Your task to perform on an android device: turn off sleep mode Image 0: 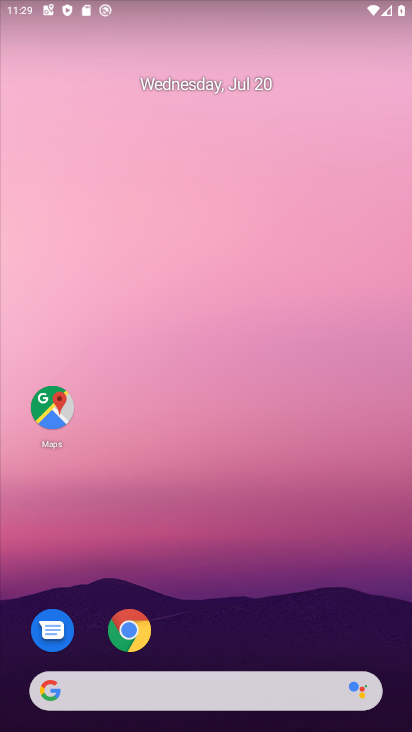
Step 0: drag from (246, 707) to (388, 97)
Your task to perform on an android device: turn off sleep mode Image 1: 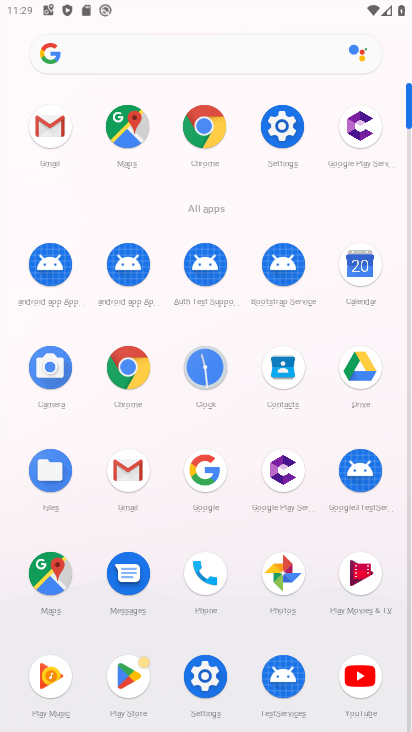
Step 1: click (283, 123)
Your task to perform on an android device: turn off sleep mode Image 2: 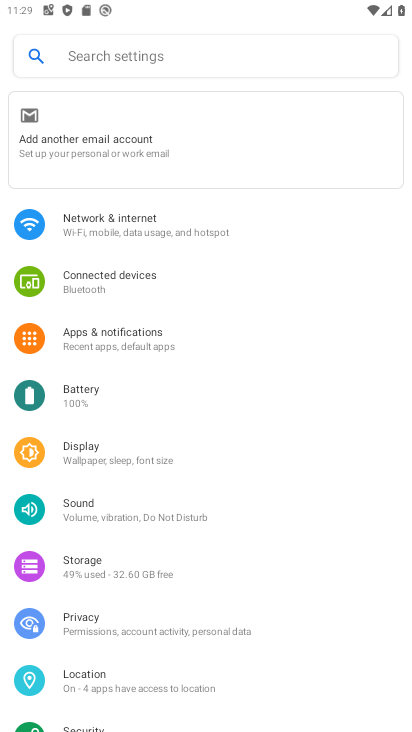
Step 2: click (125, 48)
Your task to perform on an android device: turn off sleep mode Image 3: 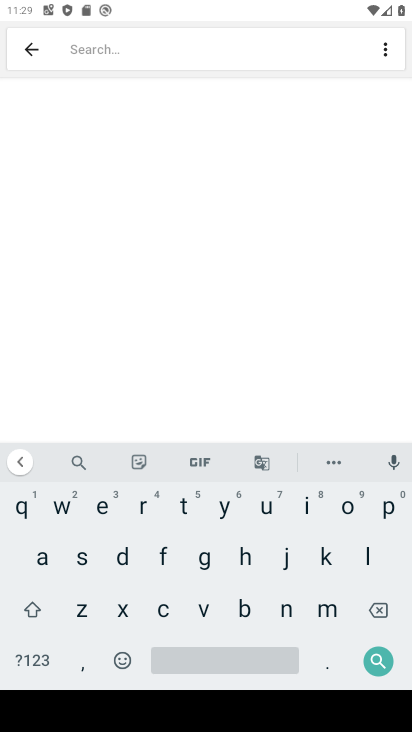
Step 3: click (79, 566)
Your task to perform on an android device: turn off sleep mode Image 4: 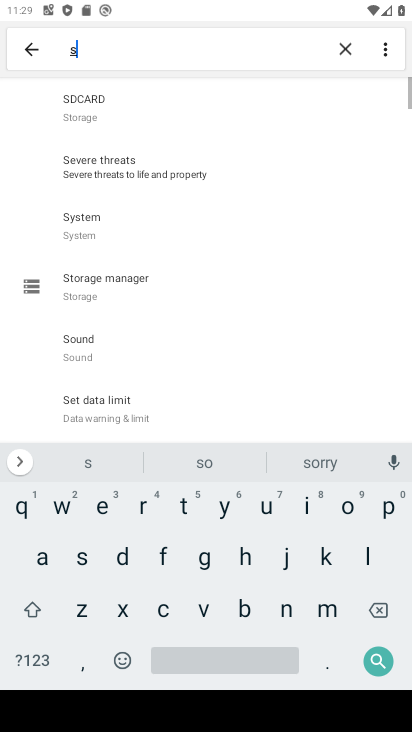
Step 4: click (368, 559)
Your task to perform on an android device: turn off sleep mode Image 5: 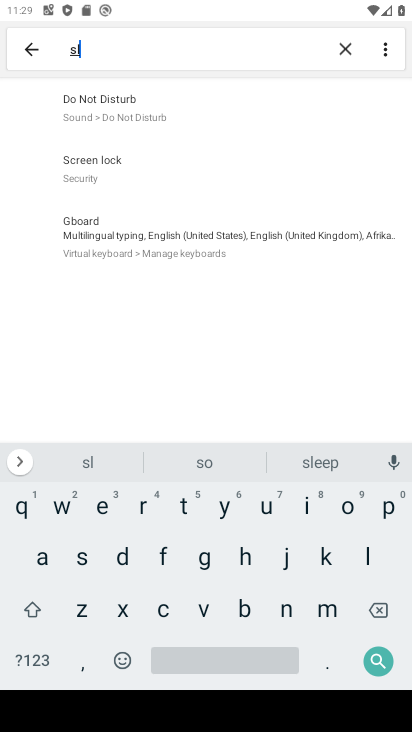
Step 5: click (128, 106)
Your task to perform on an android device: turn off sleep mode Image 6: 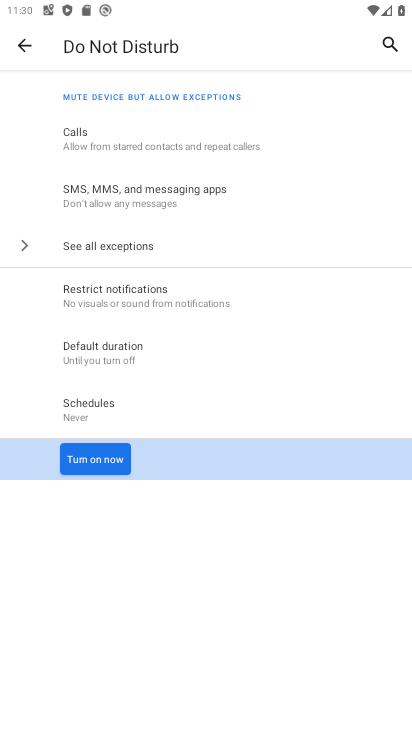
Step 6: click (89, 463)
Your task to perform on an android device: turn off sleep mode Image 7: 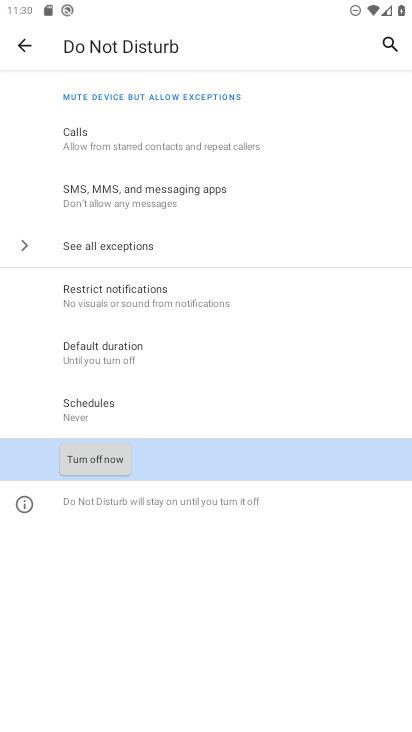
Step 7: click (89, 463)
Your task to perform on an android device: turn off sleep mode Image 8: 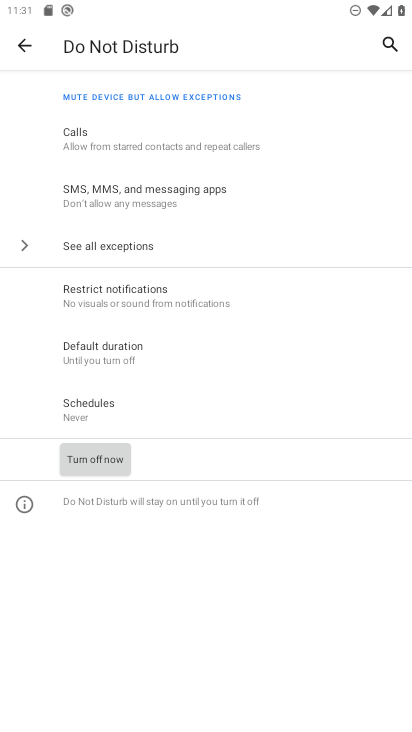
Step 8: task complete